Your task to perform on an android device: Go to sound settings Image 0: 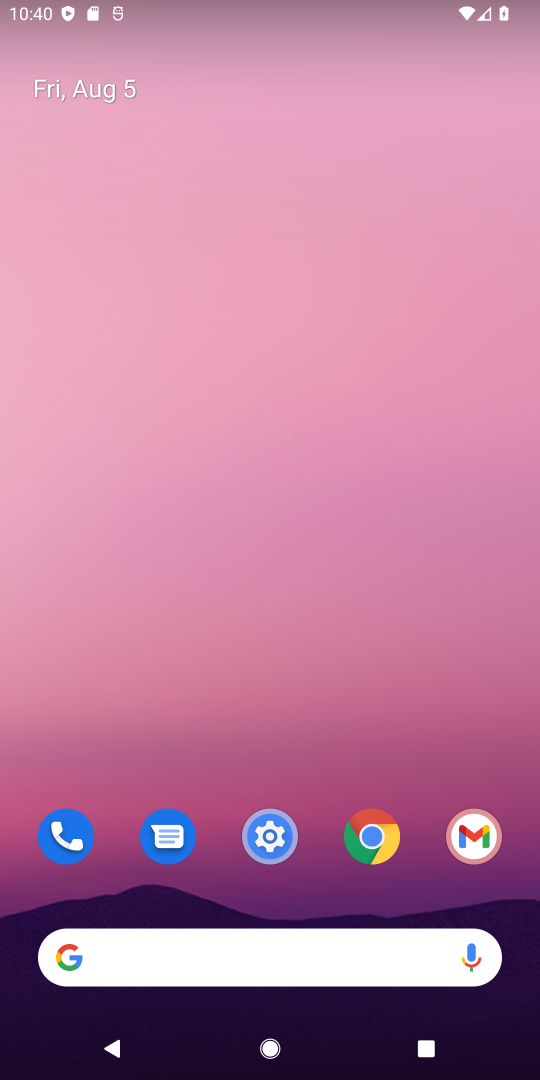
Step 0: drag from (319, 769) to (318, 122)
Your task to perform on an android device: Go to sound settings Image 1: 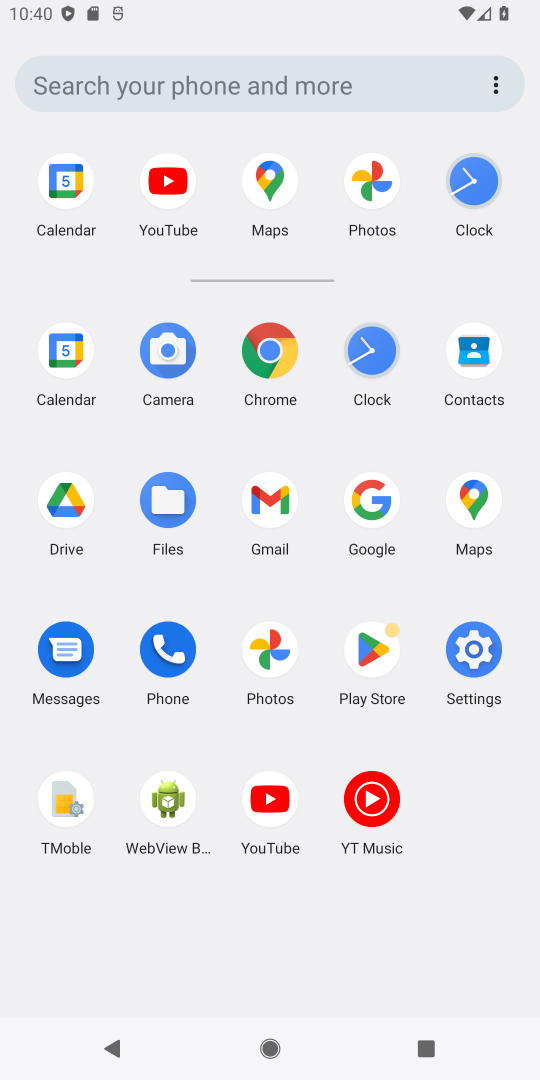
Step 1: click (487, 657)
Your task to perform on an android device: Go to sound settings Image 2: 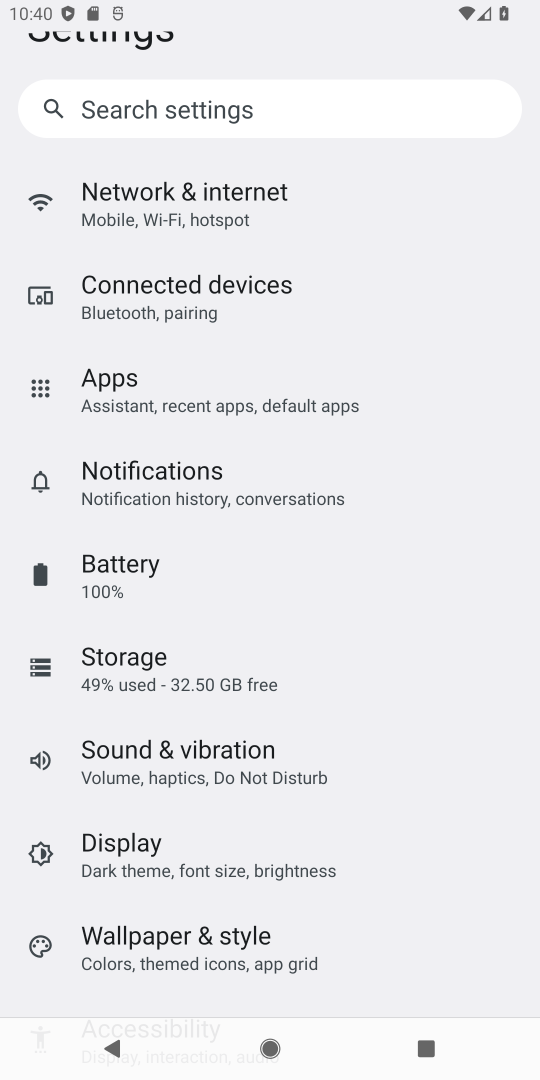
Step 2: drag from (397, 788) to (425, 264)
Your task to perform on an android device: Go to sound settings Image 3: 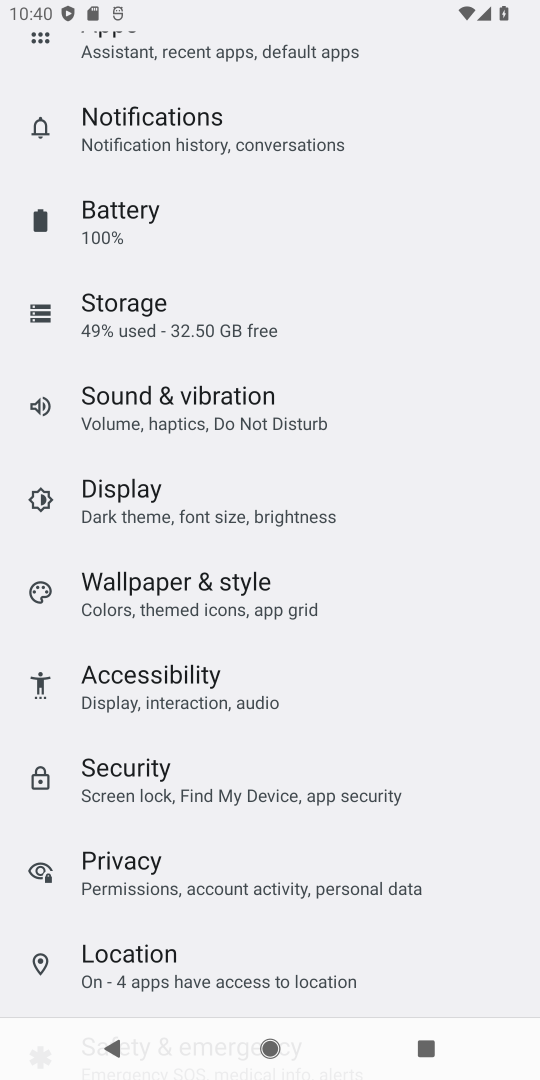
Step 3: drag from (430, 740) to (449, 259)
Your task to perform on an android device: Go to sound settings Image 4: 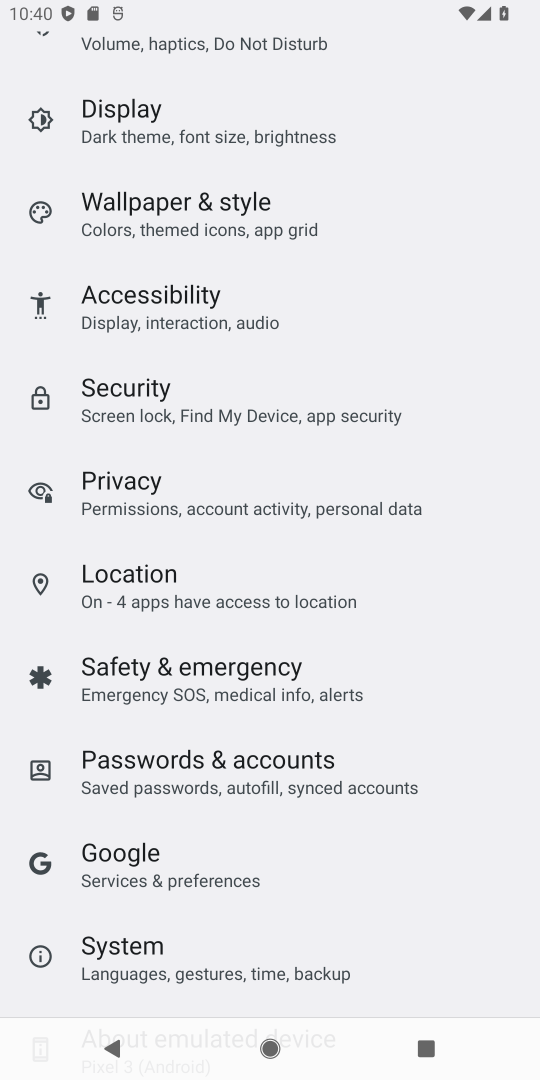
Step 4: drag from (457, 906) to (327, 1000)
Your task to perform on an android device: Go to sound settings Image 5: 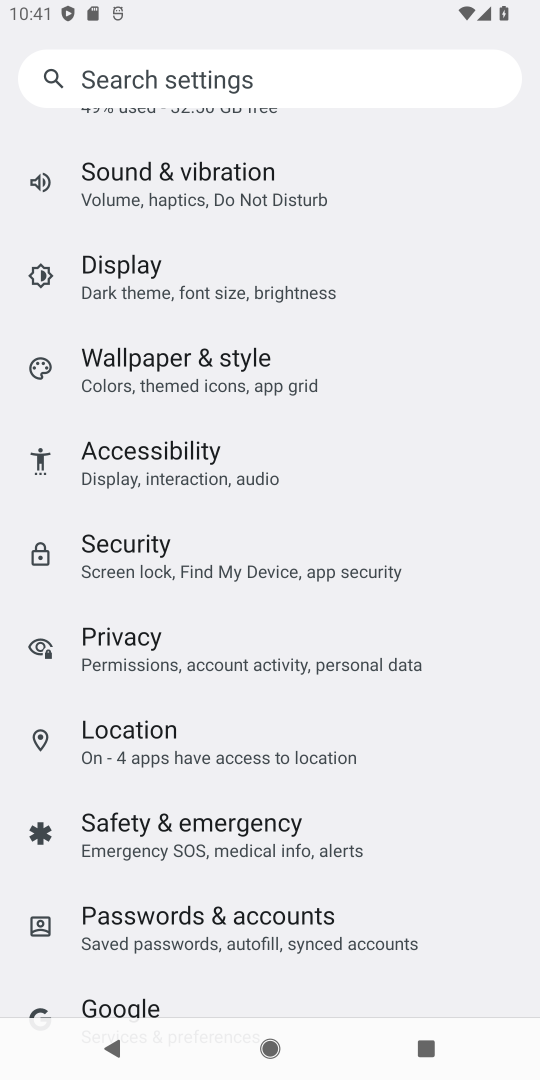
Step 5: drag from (420, 353) to (364, 709)
Your task to perform on an android device: Go to sound settings Image 6: 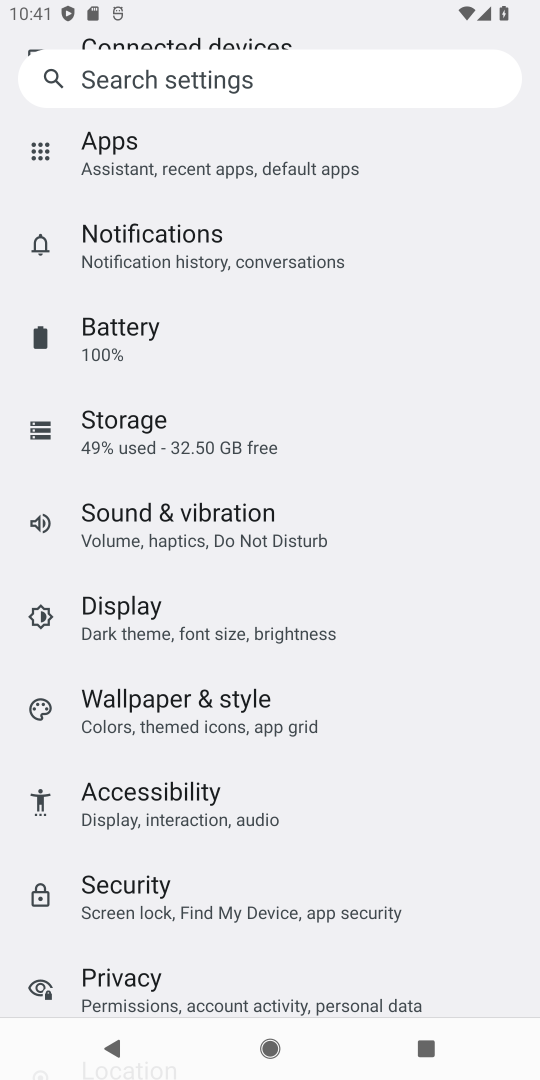
Step 6: click (229, 522)
Your task to perform on an android device: Go to sound settings Image 7: 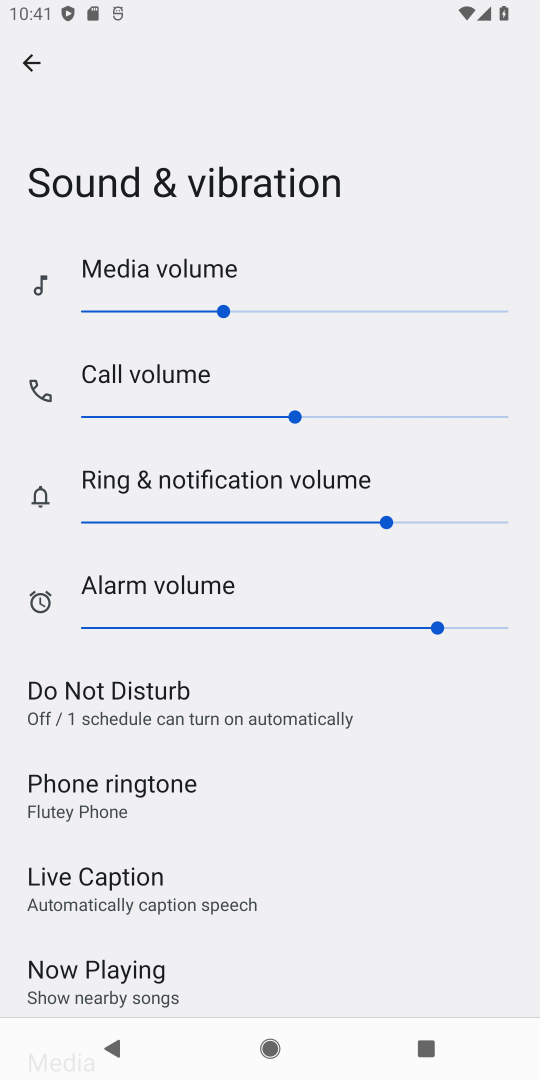
Step 7: task complete